Your task to perform on an android device: When is my next appointment? Image 0: 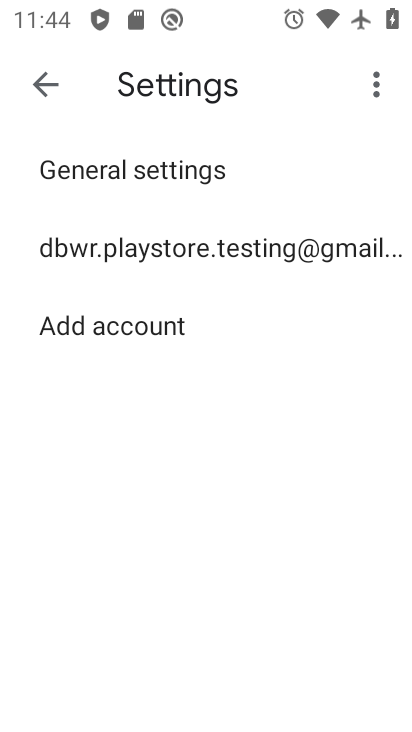
Step 0: press home button
Your task to perform on an android device: When is my next appointment? Image 1: 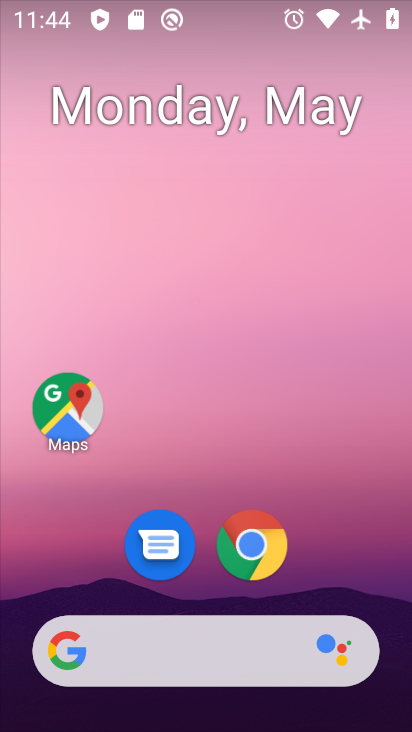
Step 1: drag from (331, 577) to (306, 88)
Your task to perform on an android device: When is my next appointment? Image 2: 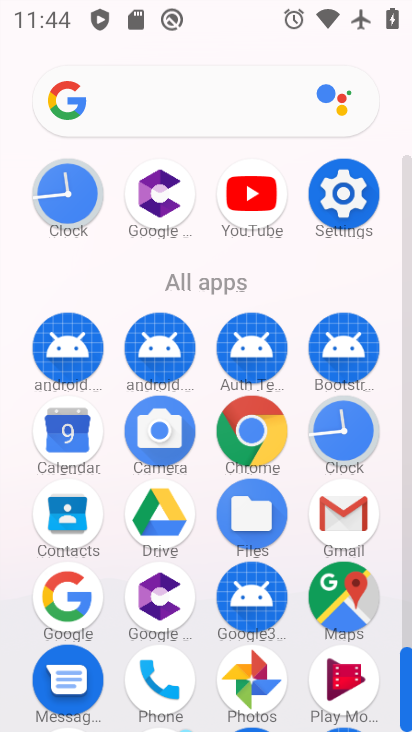
Step 2: click (55, 437)
Your task to perform on an android device: When is my next appointment? Image 3: 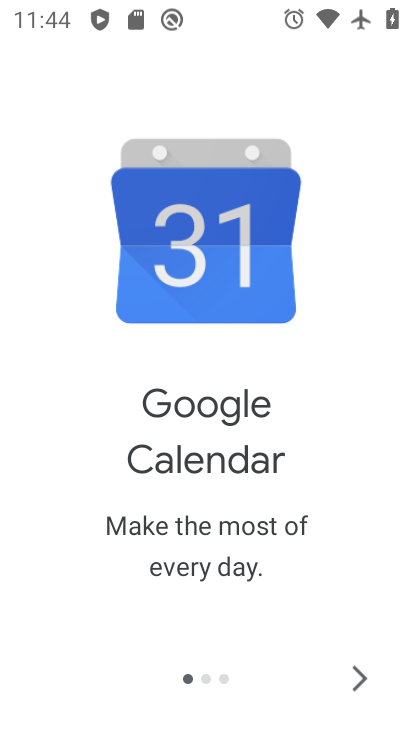
Step 3: click (360, 682)
Your task to perform on an android device: When is my next appointment? Image 4: 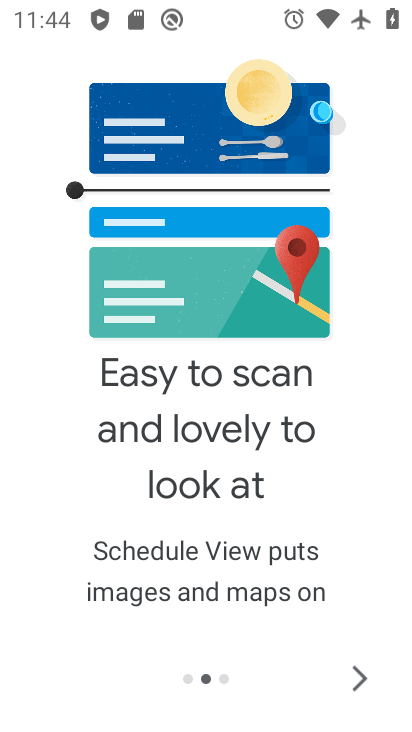
Step 4: click (360, 682)
Your task to perform on an android device: When is my next appointment? Image 5: 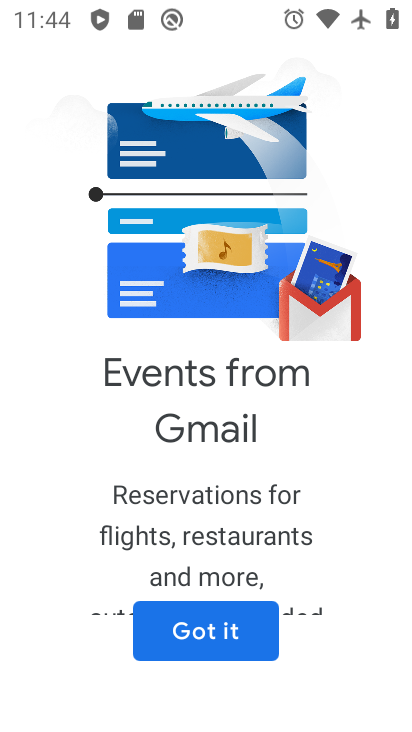
Step 5: click (191, 632)
Your task to perform on an android device: When is my next appointment? Image 6: 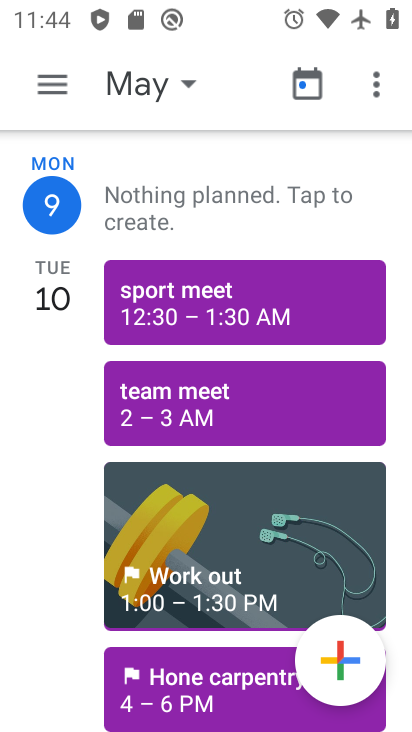
Step 6: click (148, 88)
Your task to perform on an android device: When is my next appointment? Image 7: 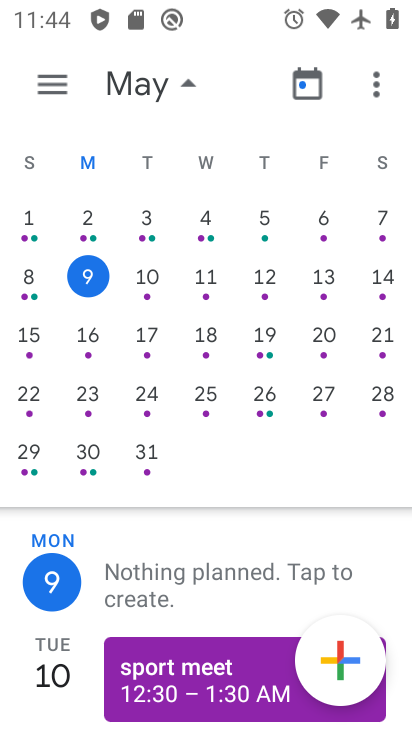
Step 7: click (101, 278)
Your task to perform on an android device: When is my next appointment? Image 8: 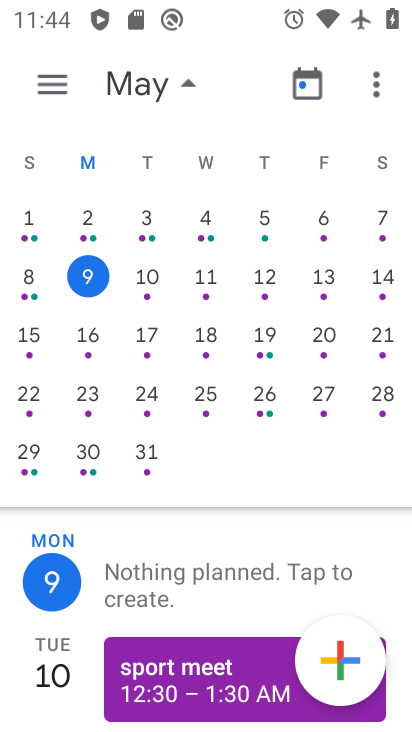
Step 8: task complete